Your task to perform on an android device: Go to internet settings Image 0: 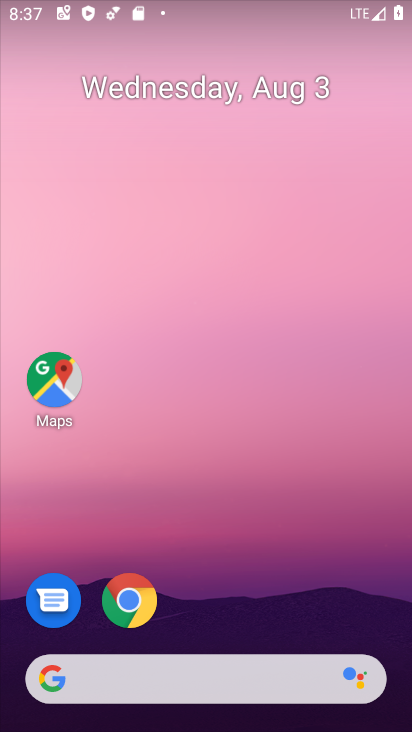
Step 0: drag from (197, 604) to (236, 91)
Your task to perform on an android device: Go to internet settings Image 1: 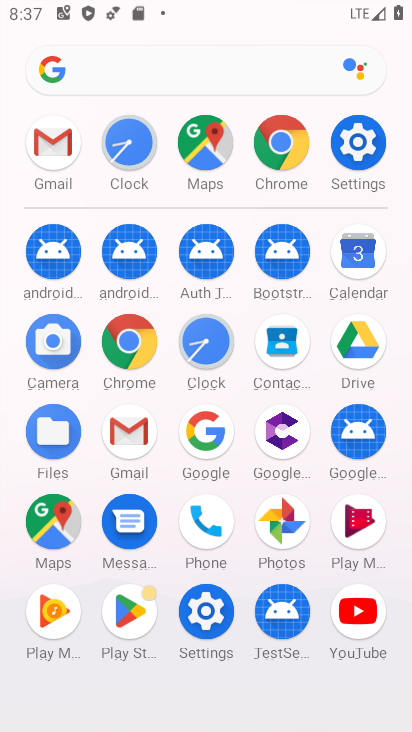
Step 1: click (360, 172)
Your task to perform on an android device: Go to internet settings Image 2: 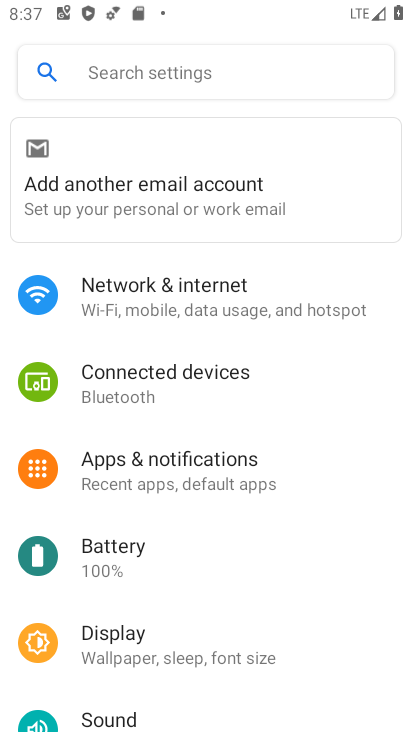
Step 2: click (272, 297)
Your task to perform on an android device: Go to internet settings Image 3: 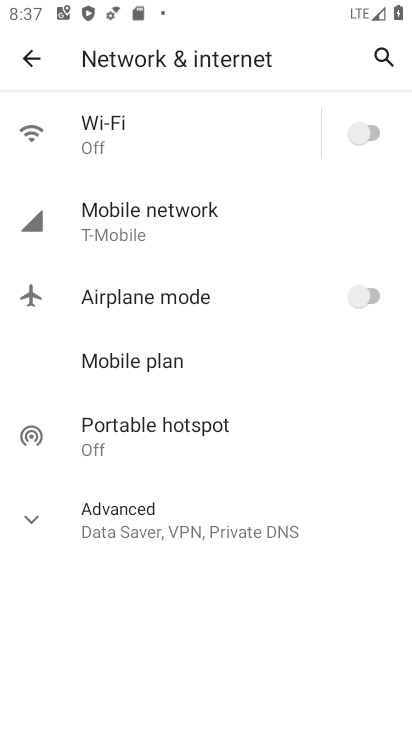
Step 3: task complete